Your task to perform on an android device: Open privacy settings Image 0: 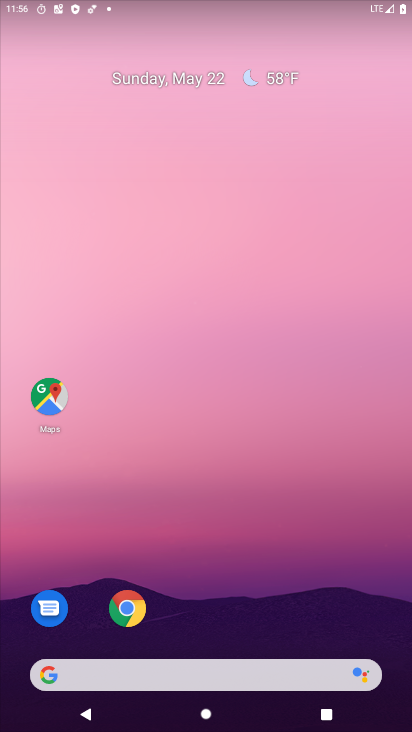
Step 0: drag from (216, 619) to (204, 86)
Your task to perform on an android device: Open privacy settings Image 1: 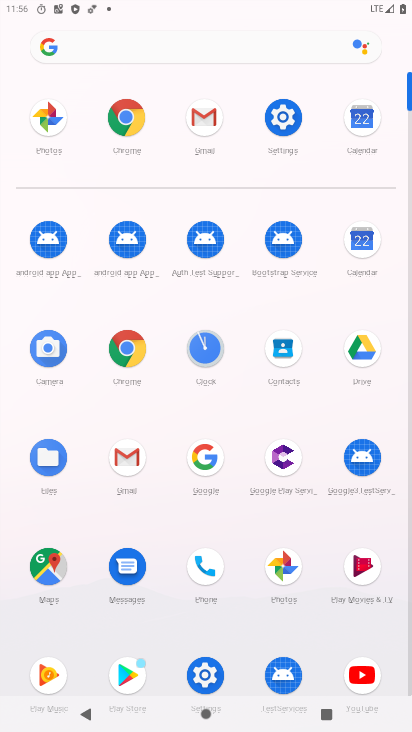
Step 1: click (285, 130)
Your task to perform on an android device: Open privacy settings Image 2: 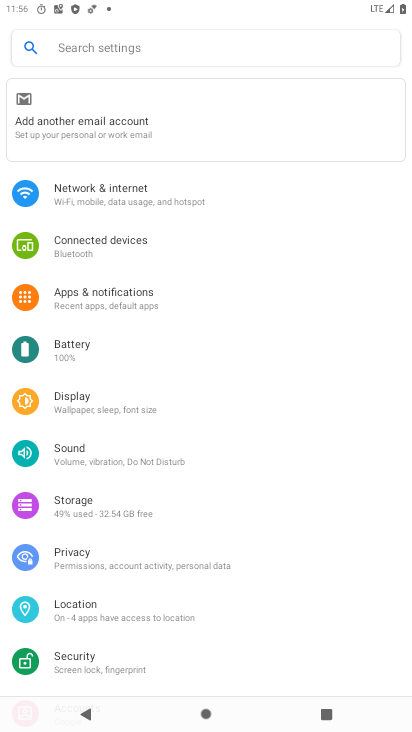
Step 2: click (148, 550)
Your task to perform on an android device: Open privacy settings Image 3: 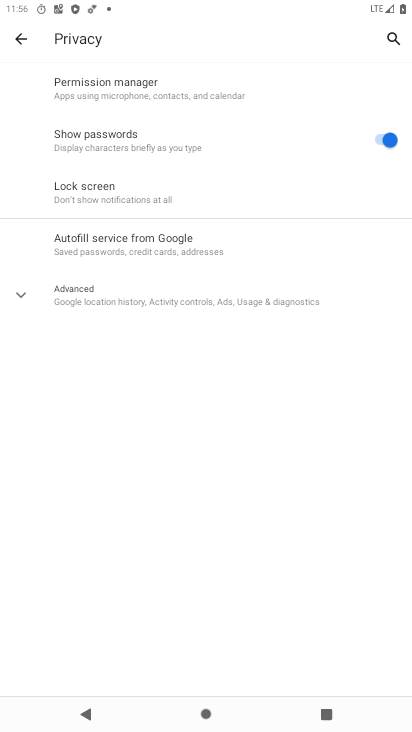
Step 3: task complete